Your task to perform on an android device: Go to notification settings Image 0: 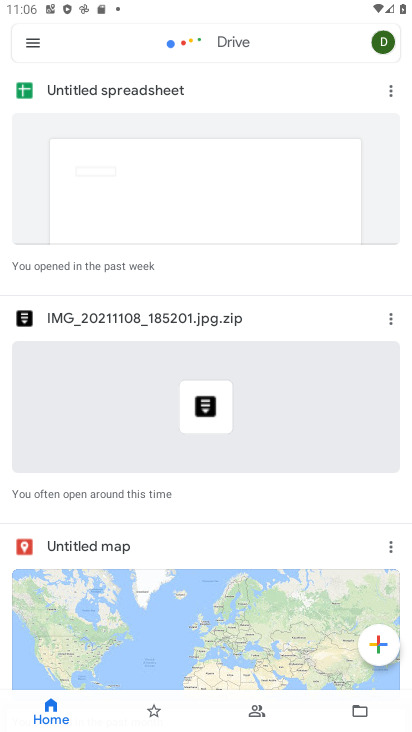
Step 0: press home button
Your task to perform on an android device: Go to notification settings Image 1: 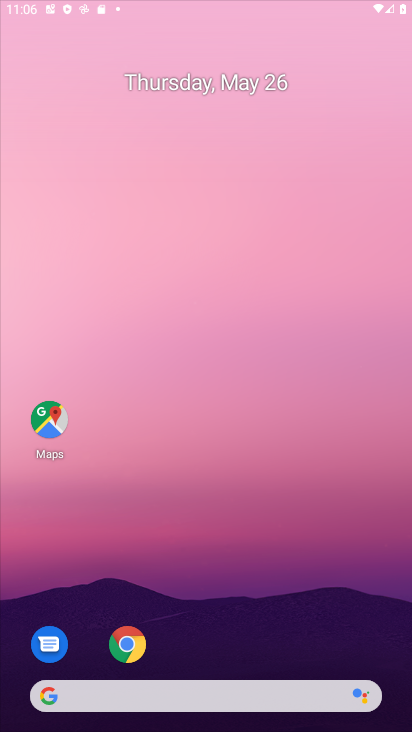
Step 1: drag from (311, 605) to (183, 6)
Your task to perform on an android device: Go to notification settings Image 2: 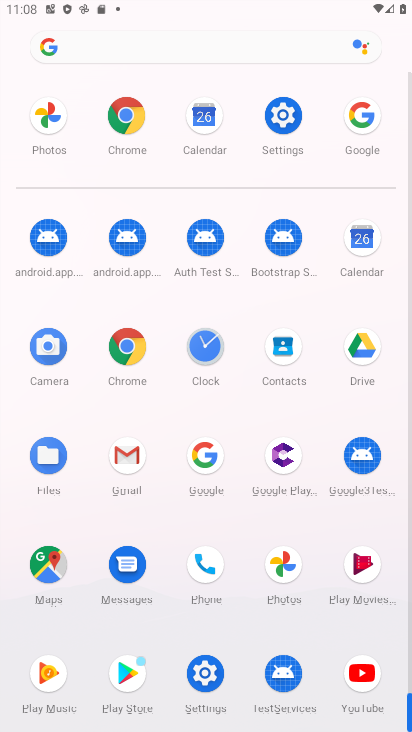
Step 2: click (214, 678)
Your task to perform on an android device: Go to notification settings Image 3: 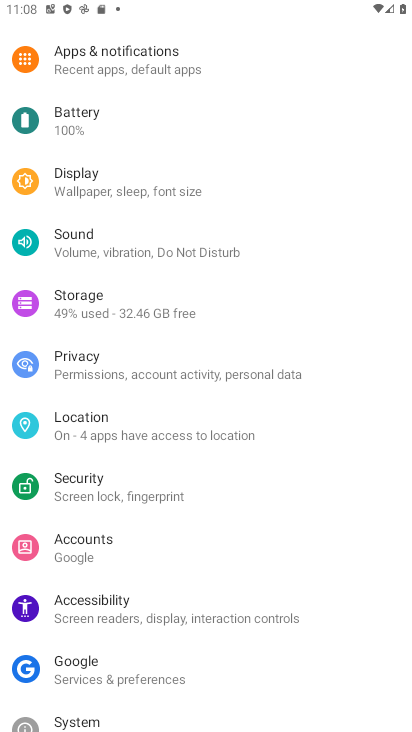
Step 3: click (171, 47)
Your task to perform on an android device: Go to notification settings Image 4: 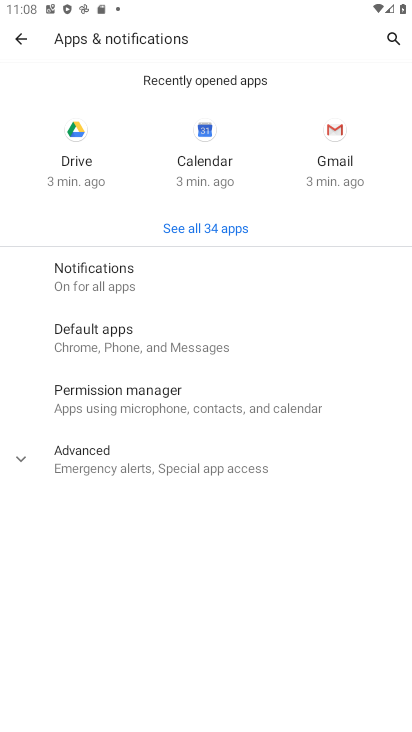
Step 4: click (105, 277)
Your task to perform on an android device: Go to notification settings Image 5: 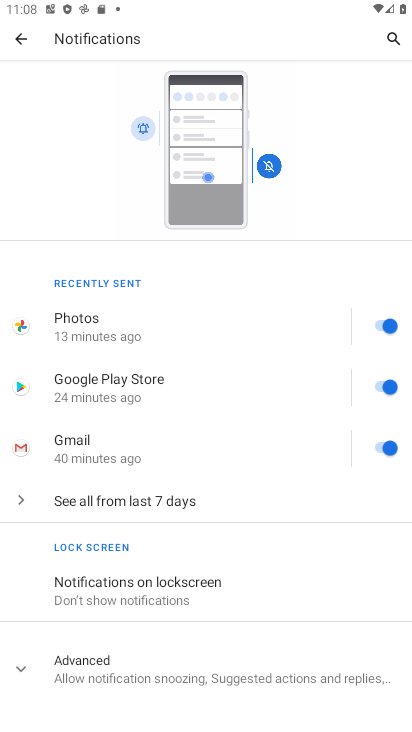
Step 5: task complete